Your task to perform on an android device: Go to Yahoo.com Image 0: 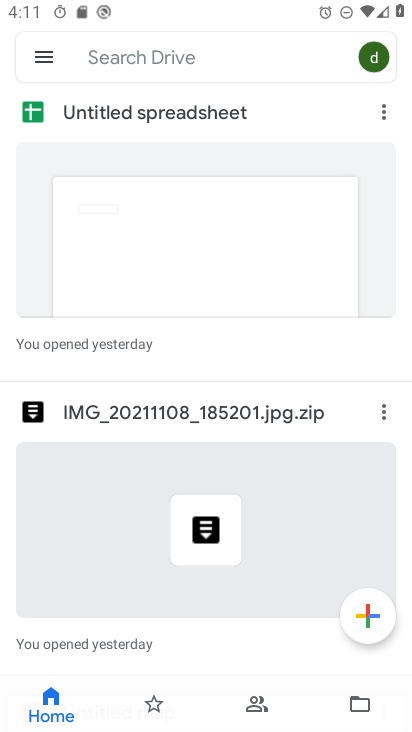
Step 0: press home button
Your task to perform on an android device: Go to Yahoo.com Image 1: 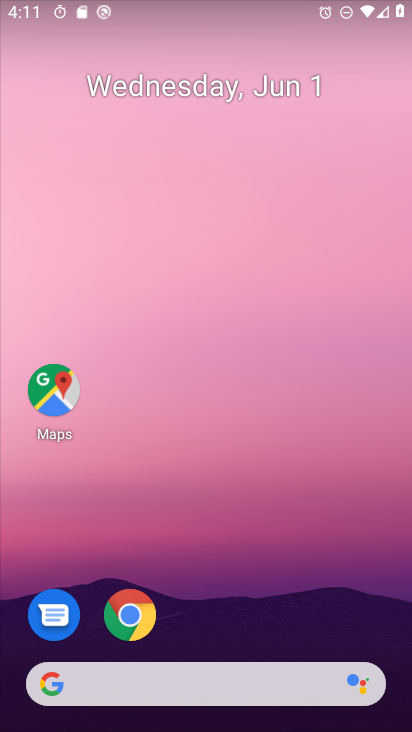
Step 1: drag from (219, 654) to (305, 15)
Your task to perform on an android device: Go to Yahoo.com Image 2: 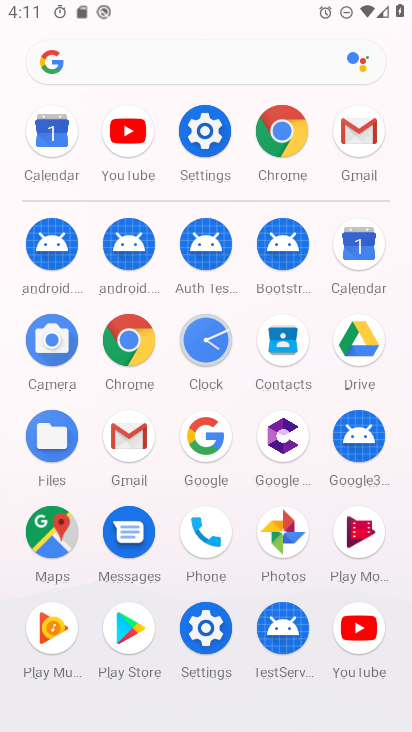
Step 2: click (122, 349)
Your task to perform on an android device: Go to Yahoo.com Image 3: 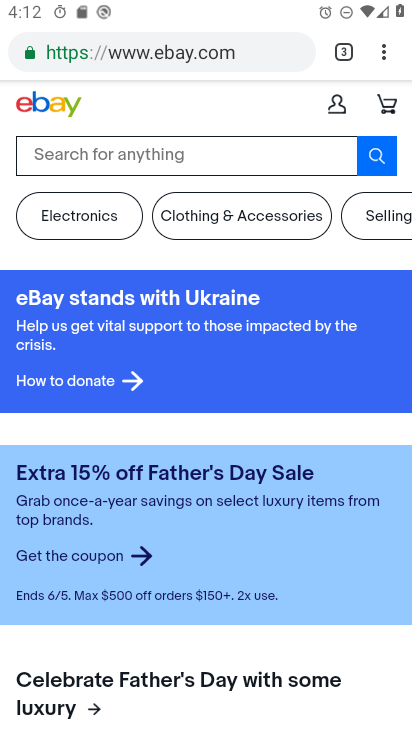
Step 3: click (233, 62)
Your task to perform on an android device: Go to Yahoo.com Image 4: 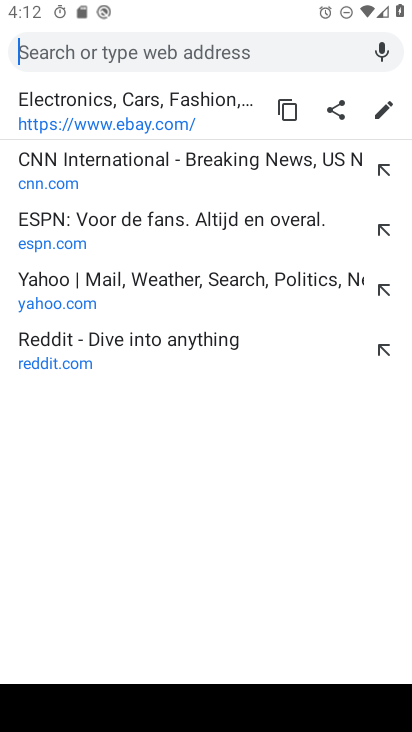
Step 4: click (284, 293)
Your task to perform on an android device: Go to Yahoo.com Image 5: 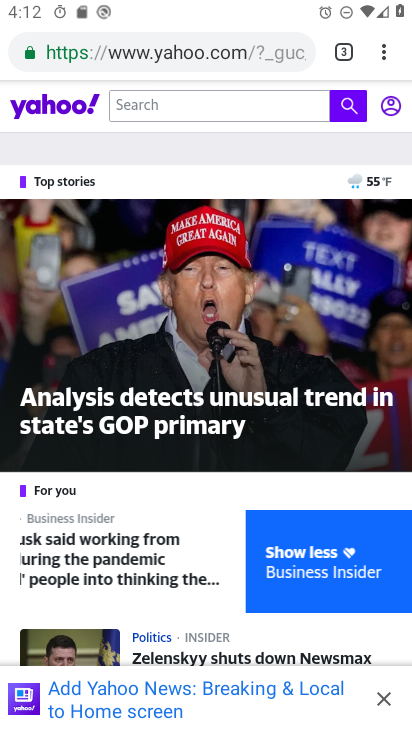
Step 5: task complete